Your task to perform on an android device: Do I have any events this weekend? Image 0: 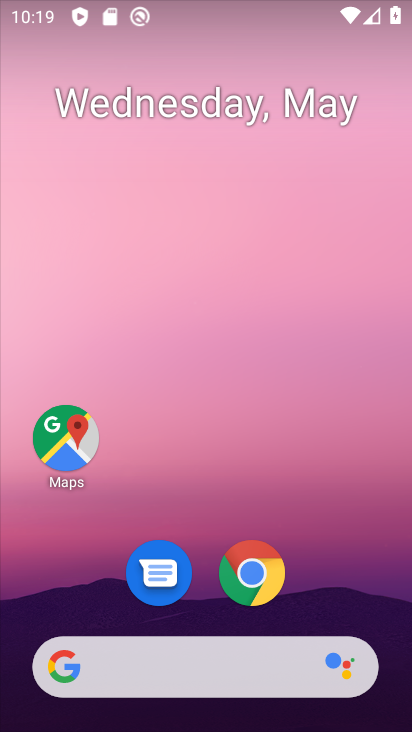
Step 0: drag from (325, 641) to (111, 116)
Your task to perform on an android device: Do I have any events this weekend? Image 1: 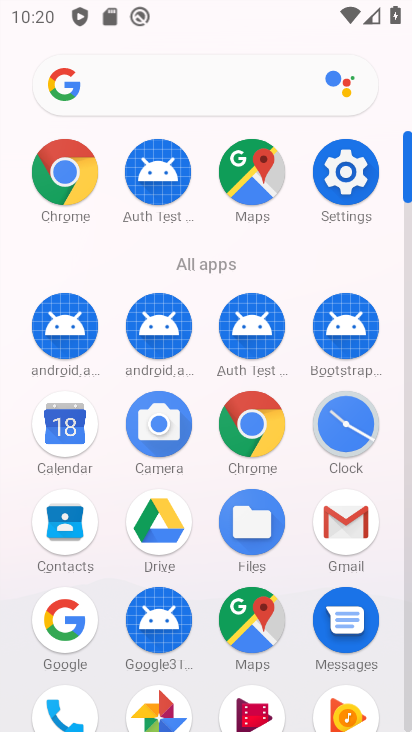
Step 1: click (67, 437)
Your task to perform on an android device: Do I have any events this weekend? Image 2: 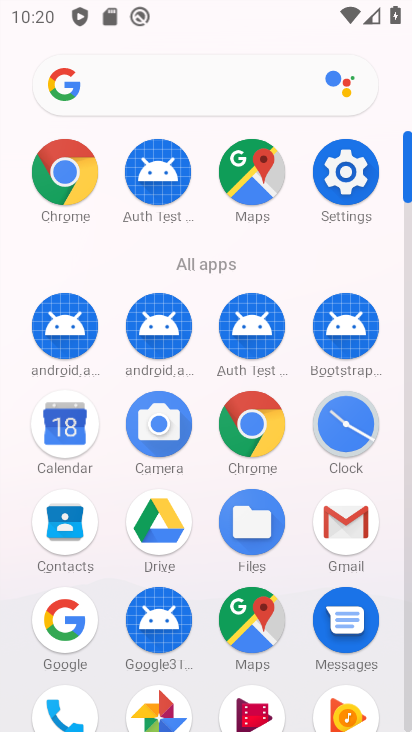
Step 2: click (66, 438)
Your task to perform on an android device: Do I have any events this weekend? Image 3: 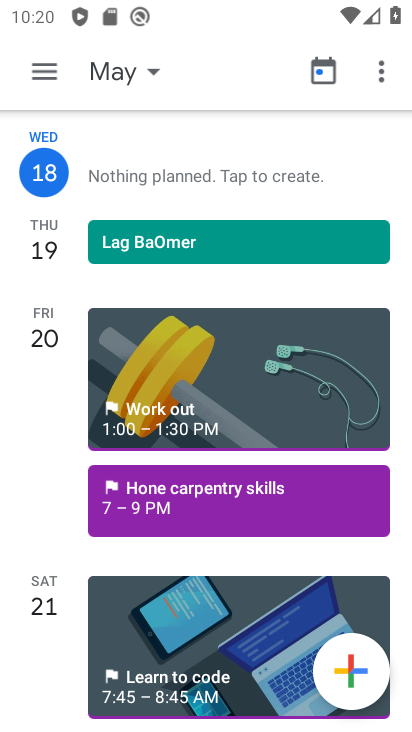
Step 3: click (154, 382)
Your task to perform on an android device: Do I have any events this weekend? Image 4: 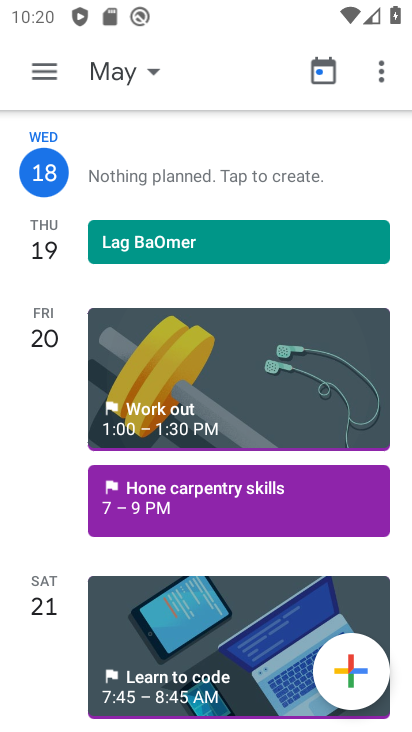
Step 4: click (154, 382)
Your task to perform on an android device: Do I have any events this weekend? Image 5: 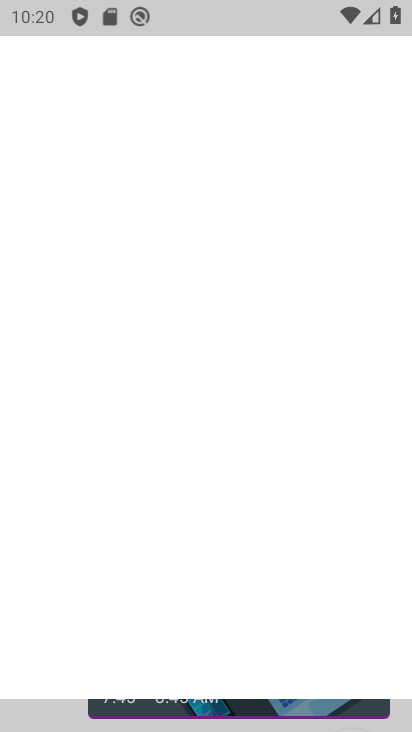
Step 5: click (153, 383)
Your task to perform on an android device: Do I have any events this weekend? Image 6: 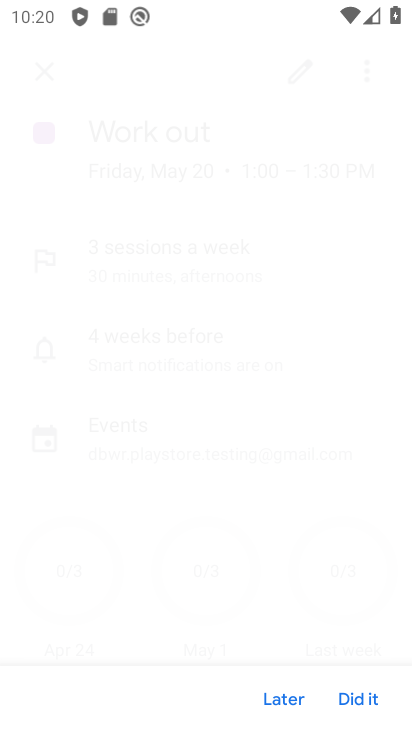
Step 6: click (153, 383)
Your task to perform on an android device: Do I have any events this weekend? Image 7: 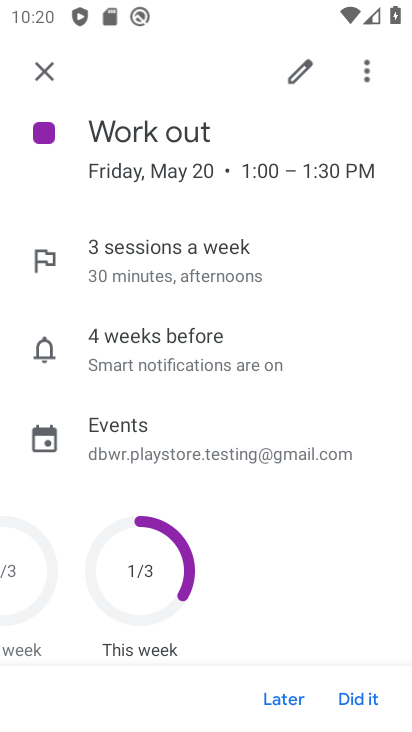
Step 7: click (47, 68)
Your task to perform on an android device: Do I have any events this weekend? Image 8: 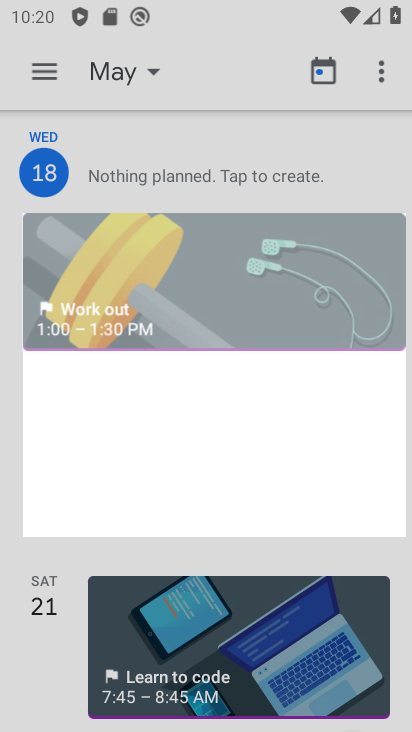
Step 8: click (47, 68)
Your task to perform on an android device: Do I have any events this weekend? Image 9: 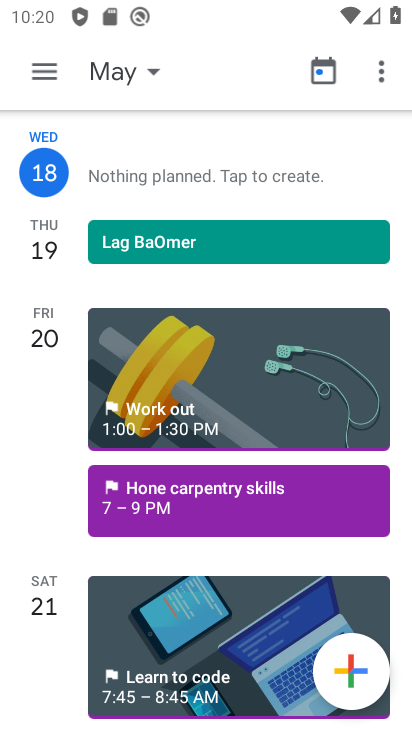
Step 9: task complete